Your task to perform on an android device: change the clock display to digital Image 0: 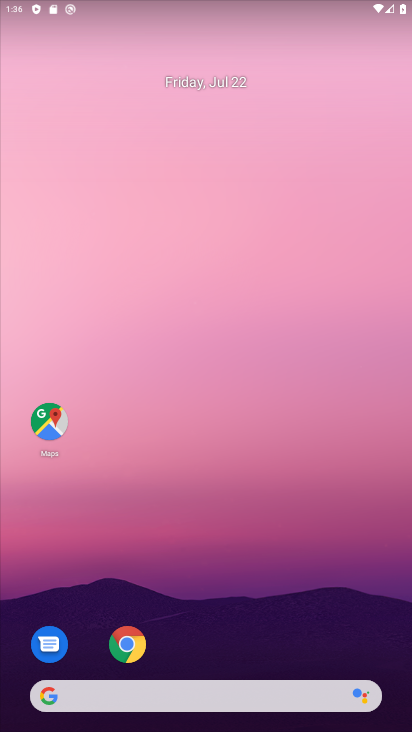
Step 0: click (271, 47)
Your task to perform on an android device: change the clock display to digital Image 1: 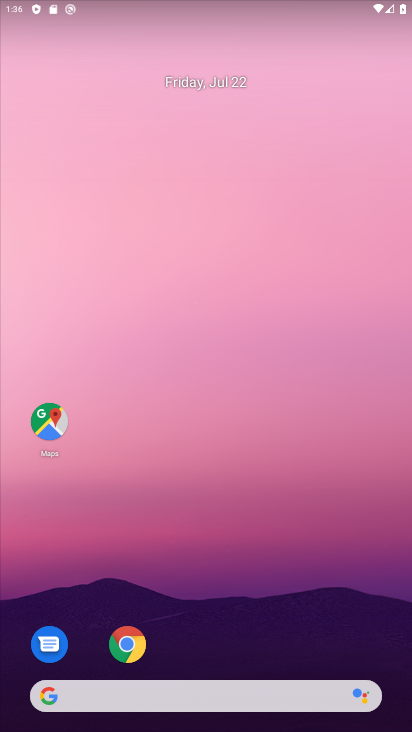
Step 1: drag from (255, 615) to (255, 311)
Your task to perform on an android device: change the clock display to digital Image 2: 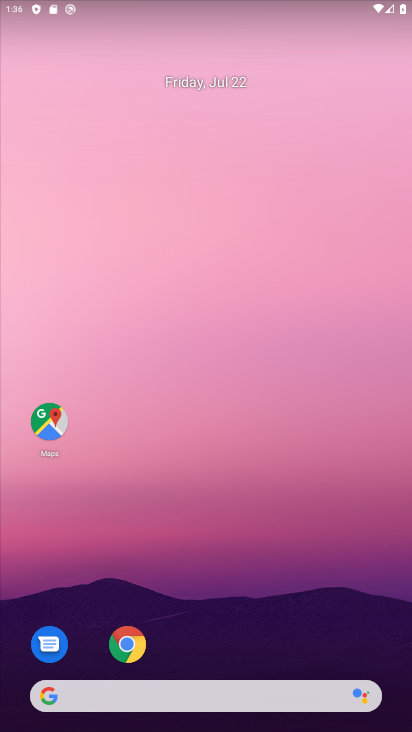
Step 2: drag from (248, 508) to (272, 14)
Your task to perform on an android device: change the clock display to digital Image 3: 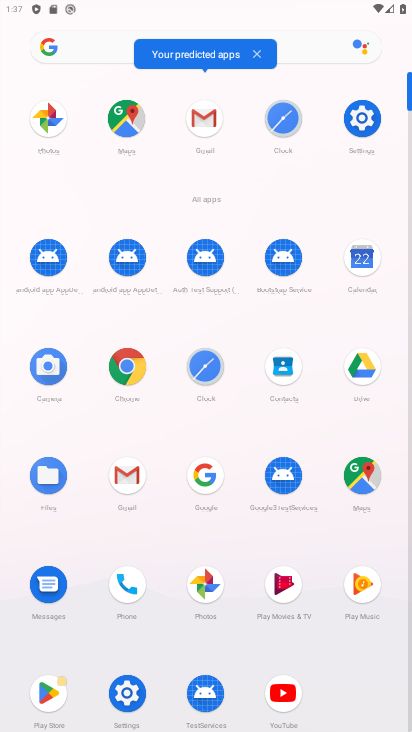
Step 3: click (275, 122)
Your task to perform on an android device: change the clock display to digital Image 4: 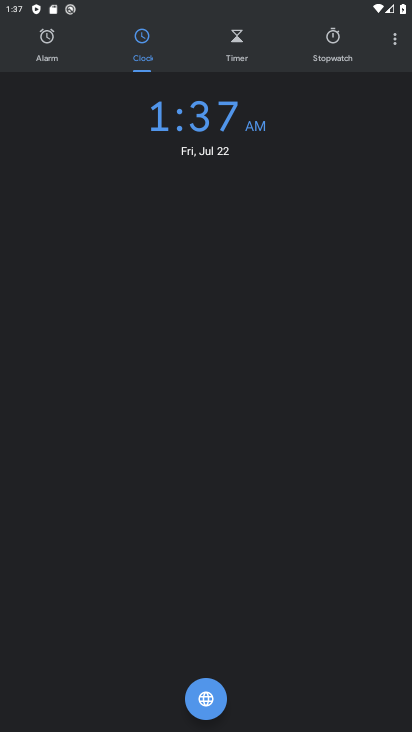
Step 4: click (389, 47)
Your task to perform on an android device: change the clock display to digital Image 5: 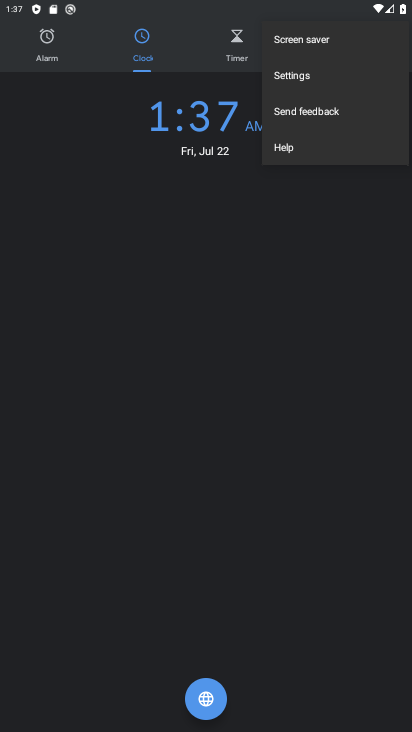
Step 5: click (308, 76)
Your task to perform on an android device: change the clock display to digital Image 6: 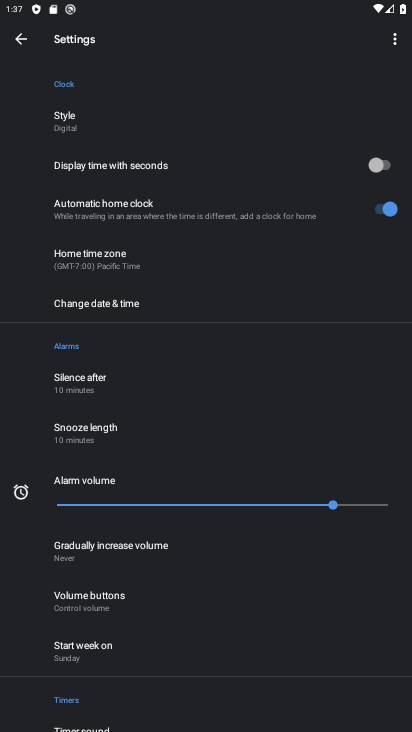
Step 6: click (96, 128)
Your task to perform on an android device: change the clock display to digital Image 7: 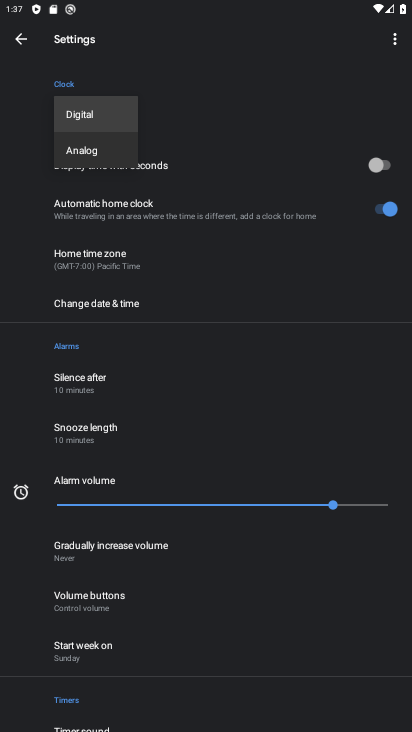
Step 7: click (111, 117)
Your task to perform on an android device: change the clock display to digital Image 8: 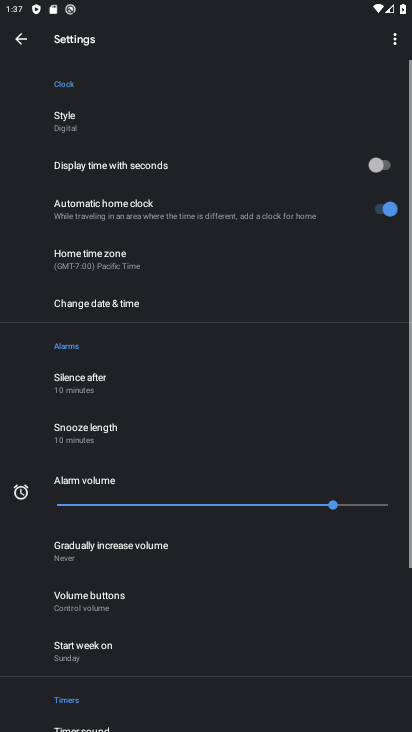
Step 8: task complete